Your task to perform on an android device: change notifications settings Image 0: 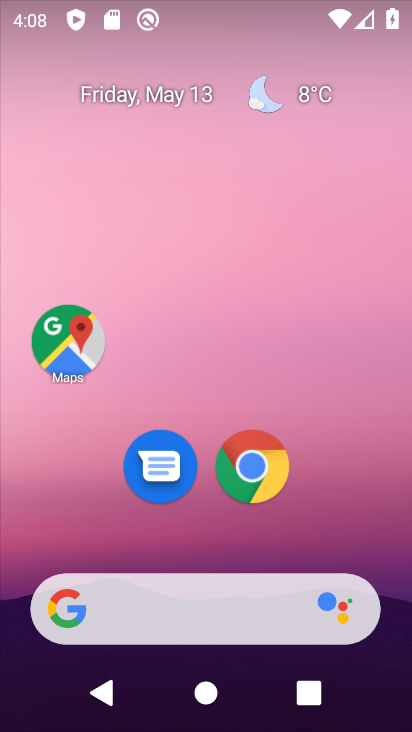
Step 0: drag from (399, 603) to (349, 28)
Your task to perform on an android device: change notifications settings Image 1: 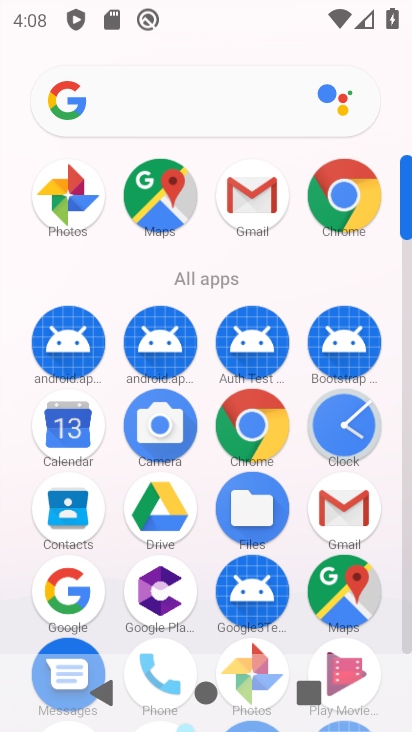
Step 1: click (404, 648)
Your task to perform on an android device: change notifications settings Image 2: 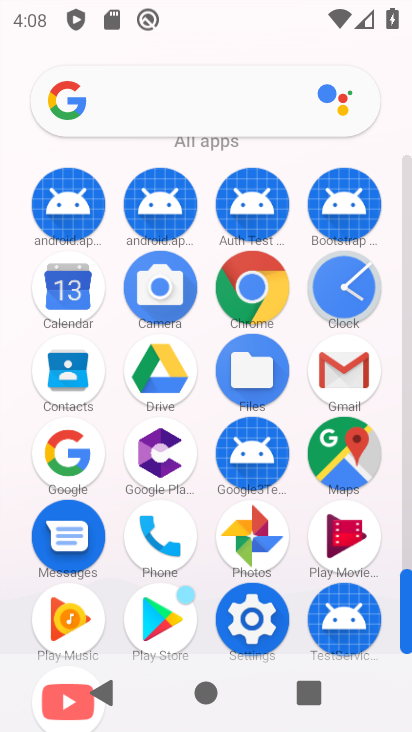
Step 2: click (248, 613)
Your task to perform on an android device: change notifications settings Image 3: 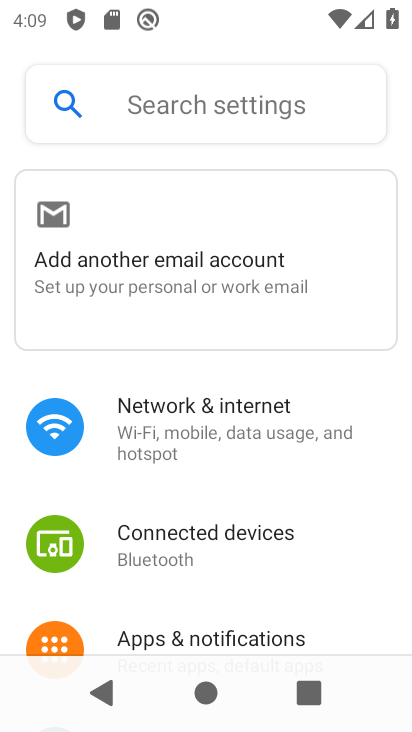
Step 3: drag from (303, 609) to (324, 226)
Your task to perform on an android device: change notifications settings Image 4: 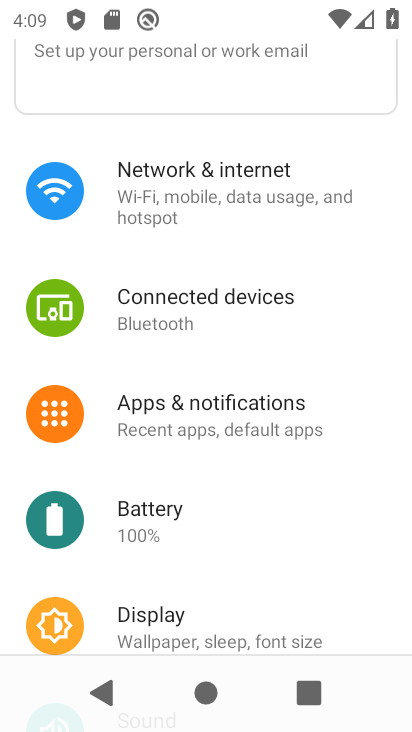
Step 4: click (197, 404)
Your task to perform on an android device: change notifications settings Image 5: 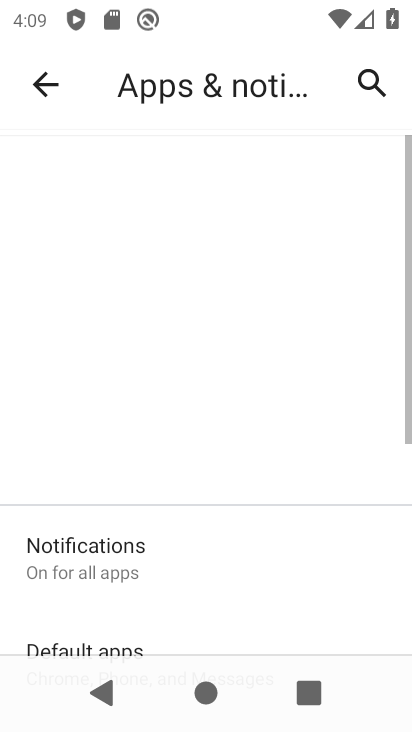
Step 5: click (95, 558)
Your task to perform on an android device: change notifications settings Image 6: 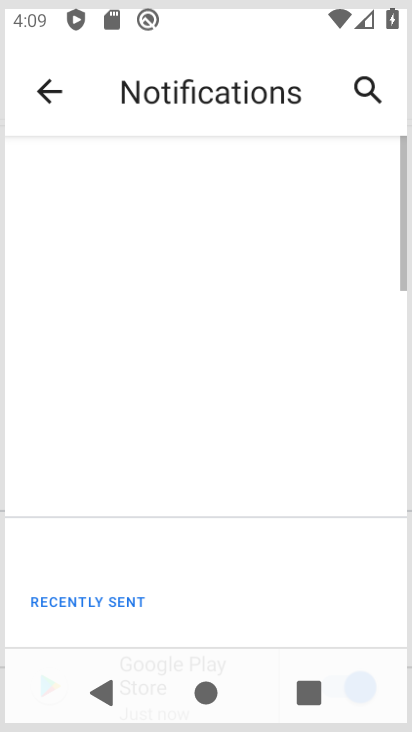
Step 6: drag from (267, 613) to (287, 268)
Your task to perform on an android device: change notifications settings Image 7: 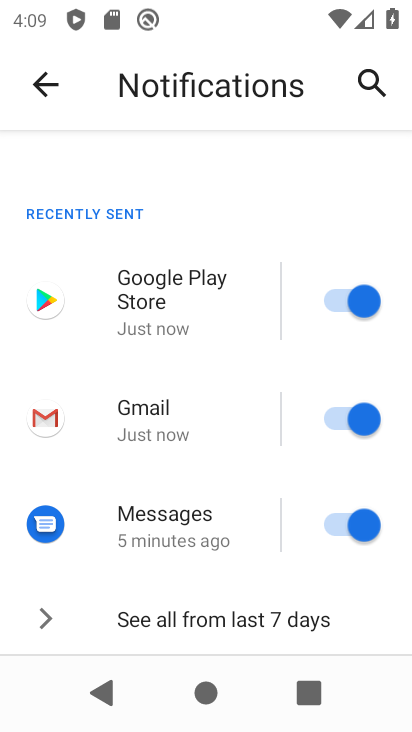
Step 7: drag from (275, 606) to (255, 153)
Your task to perform on an android device: change notifications settings Image 8: 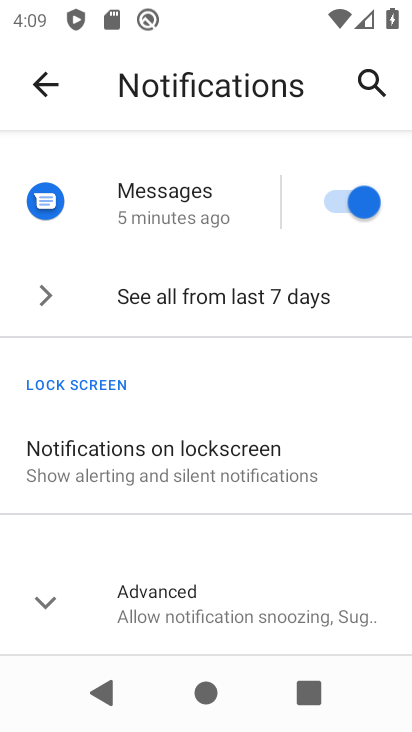
Step 8: drag from (243, 590) to (252, 194)
Your task to perform on an android device: change notifications settings Image 9: 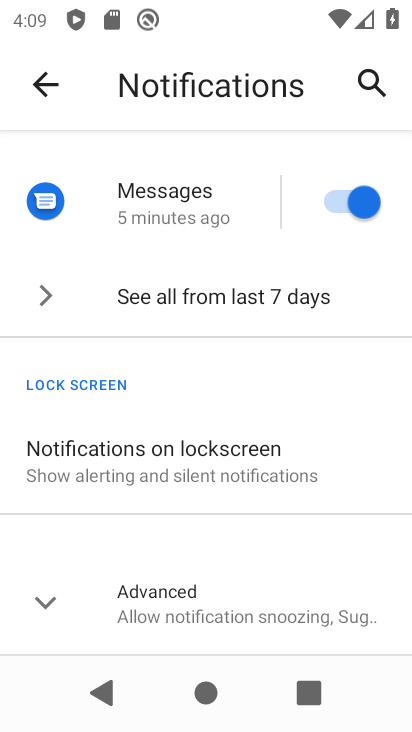
Step 9: click (44, 610)
Your task to perform on an android device: change notifications settings Image 10: 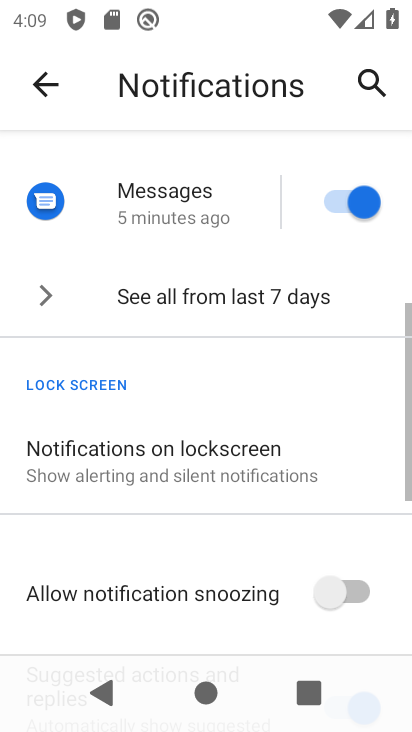
Step 10: drag from (256, 595) to (281, 132)
Your task to perform on an android device: change notifications settings Image 11: 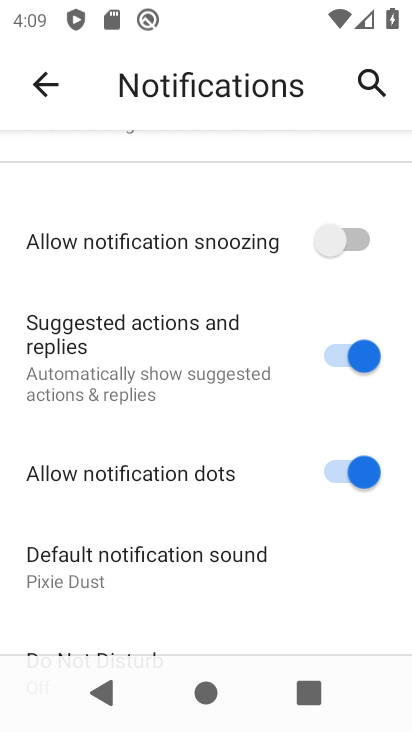
Step 11: click (348, 243)
Your task to perform on an android device: change notifications settings Image 12: 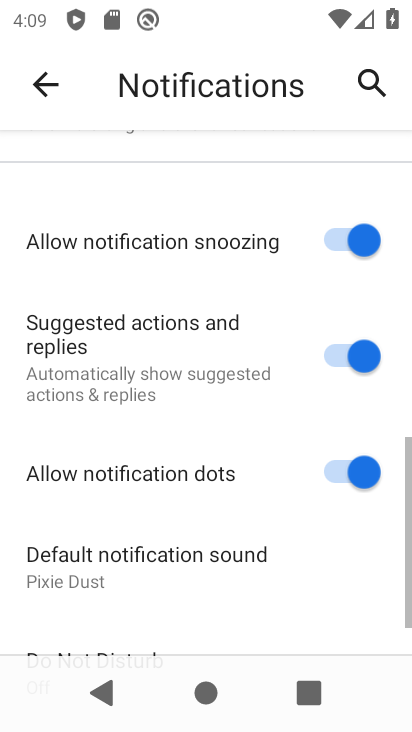
Step 12: click (337, 457)
Your task to perform on an android device: change notifications settings Image 13: 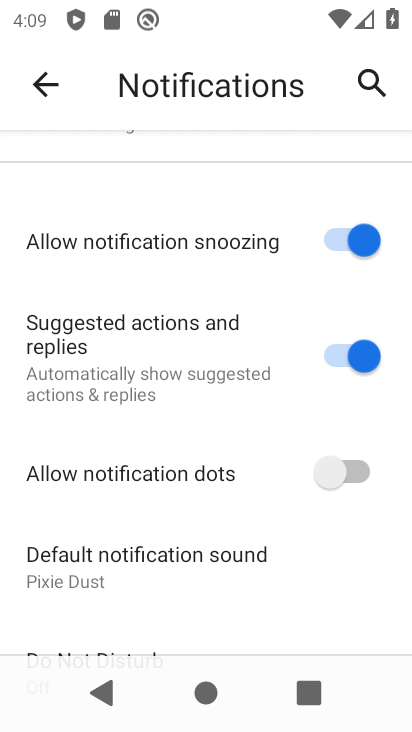
Step 13: task complete